Your task to perform on an android device: turn on airplane mode Image 0: 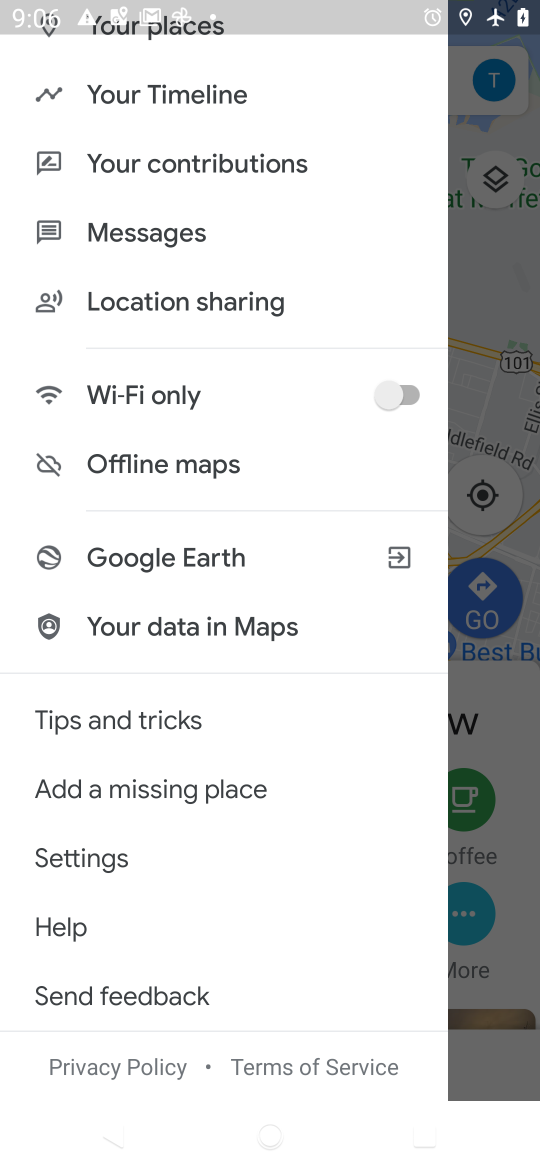
Step 0: press home button
Your task to perform on an android device: turn on airplane mode Image 1: 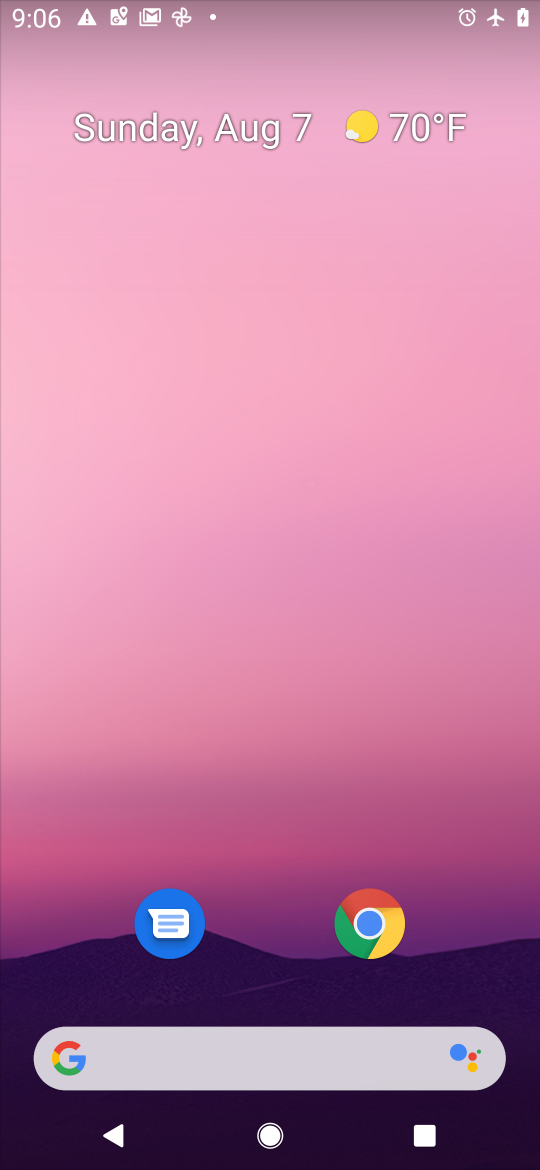
Step 1: task complete